Your task to perform on an android device: star an email in the gmail app Image 0: 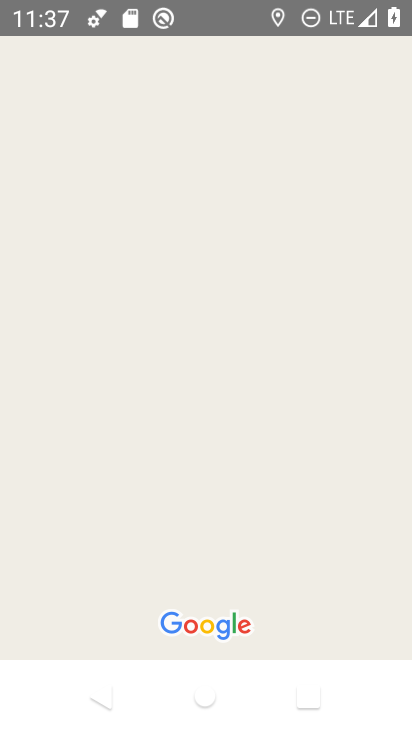
Step 0: press home button
Your task to perform on an android device: star an email in the gmail app Image 1: 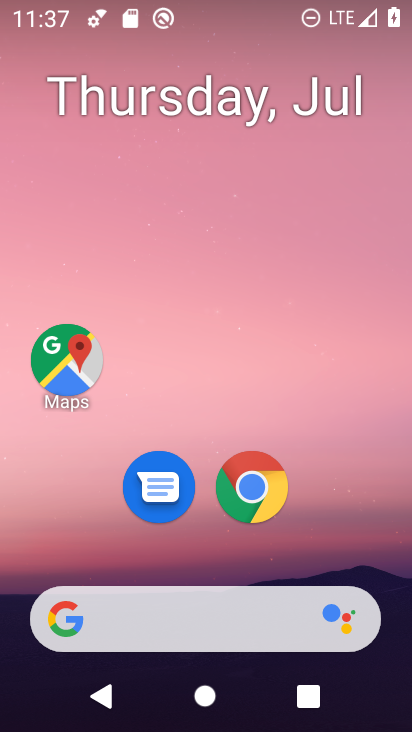
Step 1: drag from (153, 730) to (187, 171)
Your task to perform on an android device: star an email in the gmail app Image 2: 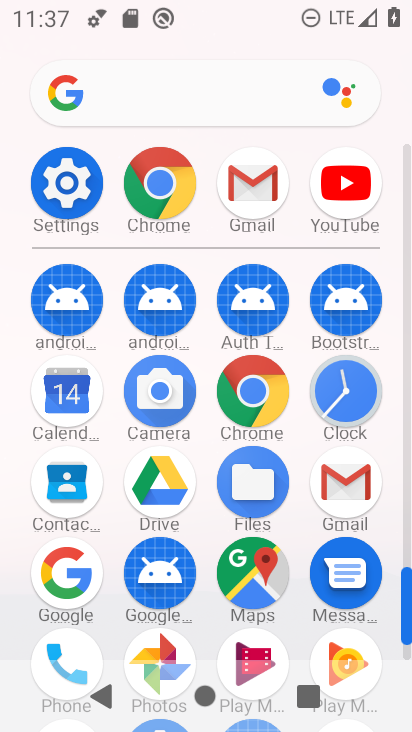
Step 2: click (332, 490)
Your task to perform on an android device: star an email in the gmail app Image 3: 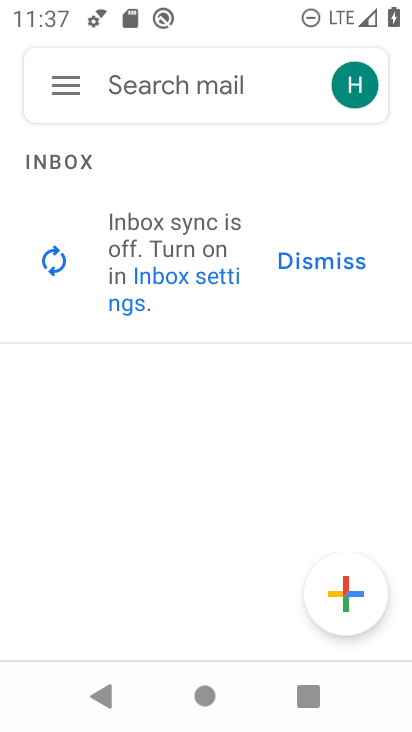
Step 3: click (66, 89)
Your task to perform on an android device: star an email in the gmail app Image 4: 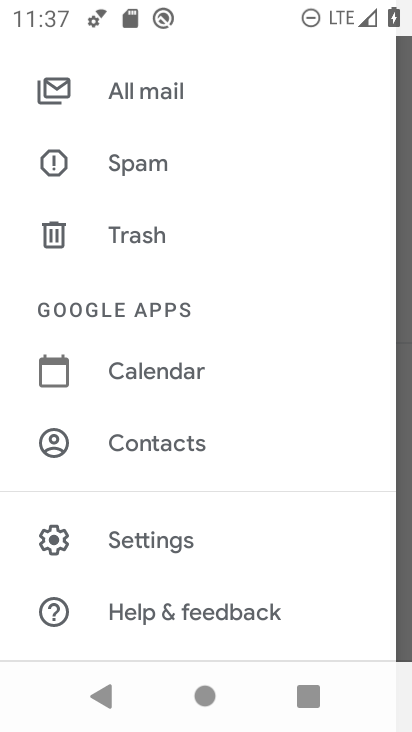
Step 4: drag from (139, 288) to (125, 586)
Your task to perform on an android device: star an email in the gmail app Image 5: 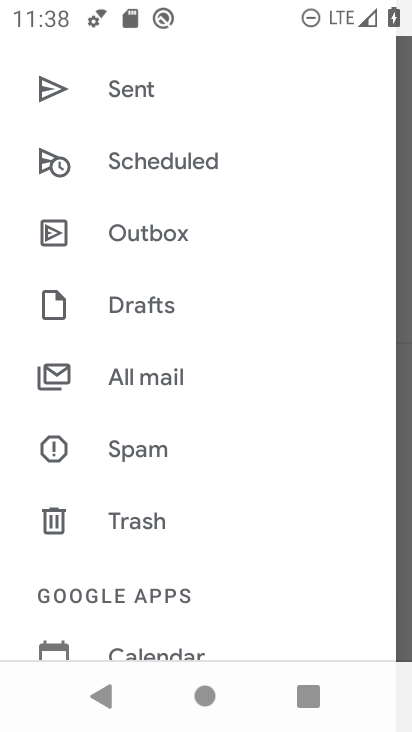
Step 5: click (143, 382)
Your task to perform on an android device: star an email in the gmail app Image 6: 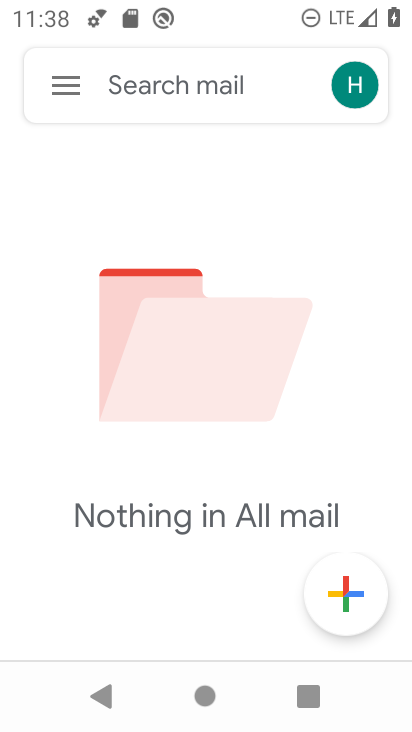
Step 6: task complete